Your task to perform on an android device: Open calendar and show me the second week of next month Image 0: 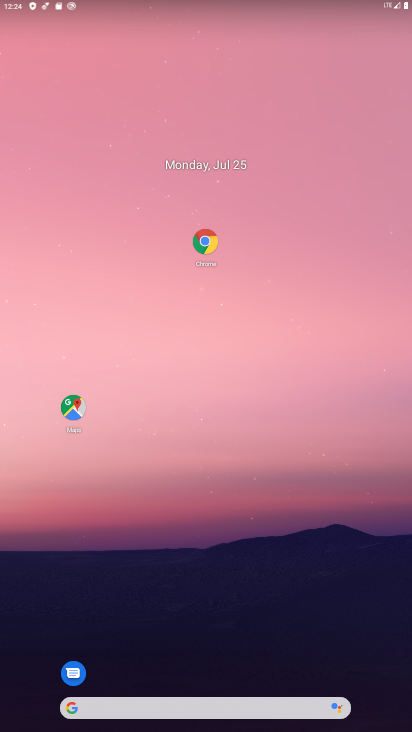
Step 0: drag from (293, 704) to (324, 46)
Your task to perform on an android device: Open calendar and show me the second week of next month Image 1: 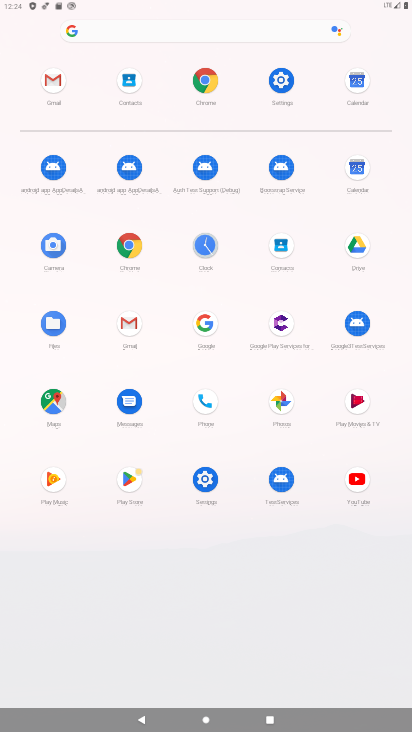
Step 1: click (357, 170)
Your task to perform on an android device: Open calendar and show me the second week of next month Image 2: 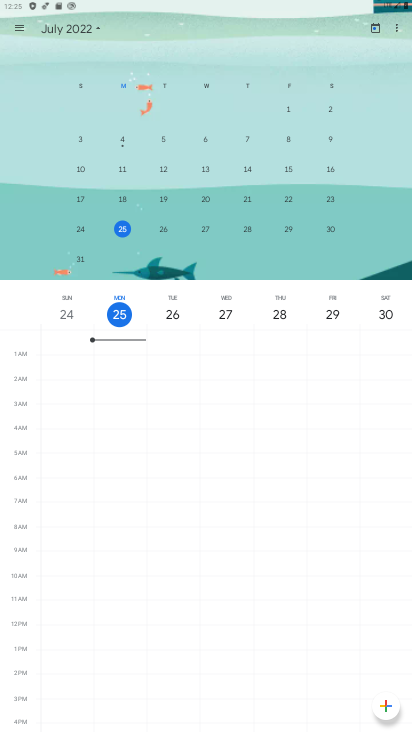
Step 2: drag from (349, 209) to (59, 151)
Your task to perform on an android device: Open calendar and show me the second week of next month Image 3: 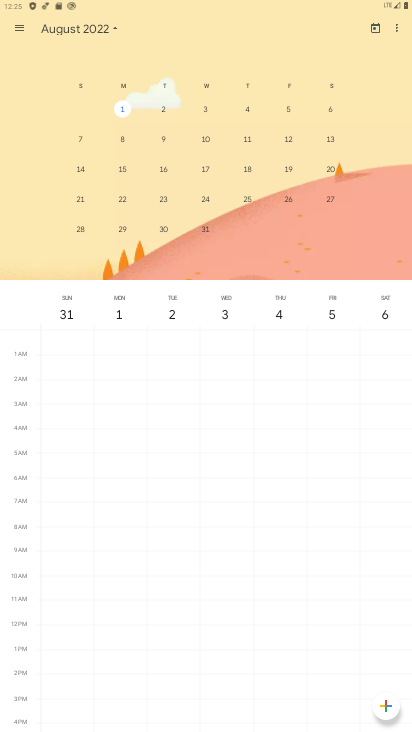
Step 3: click (202, 132)
Your task to perform on an android device: Open calendar and show me the second week of next month Image 4: 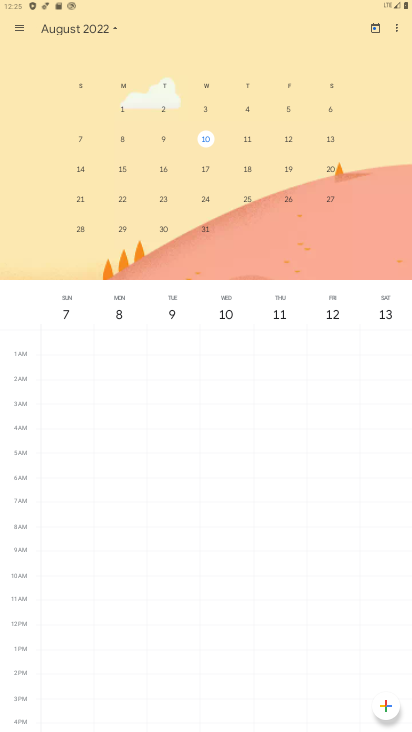
Step 4: task complete